Your task to perform on an android device: turn off data saver in the chrome app Image 0: 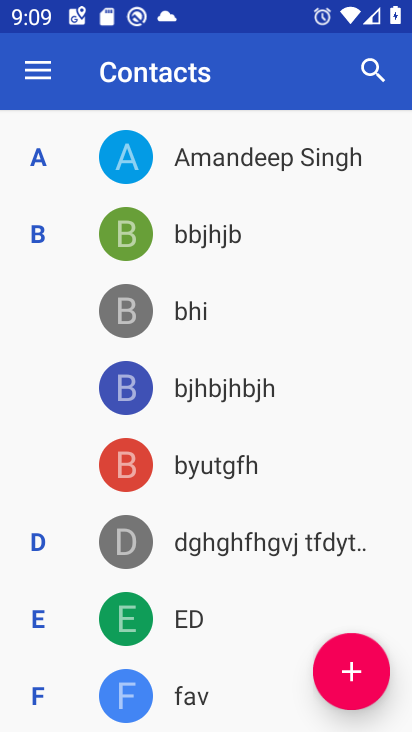
Step 0: press home button
Your task to perform on an android device: turn off data saver in the chrome app Image 1: 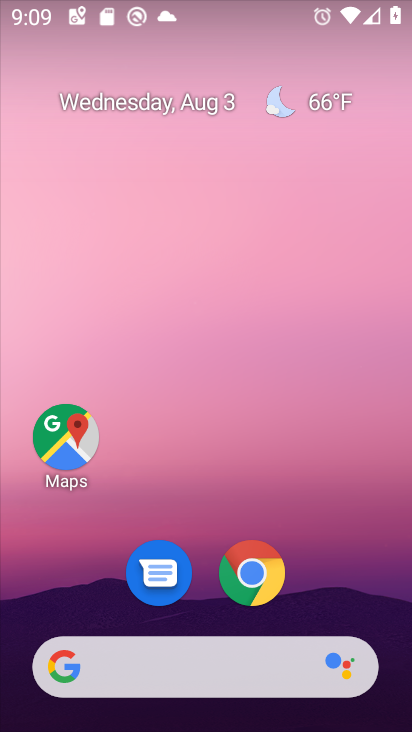
Step 1: click (256, 580)
Your task to perform on an android device: turn off data saver in the chrome app Image 2: 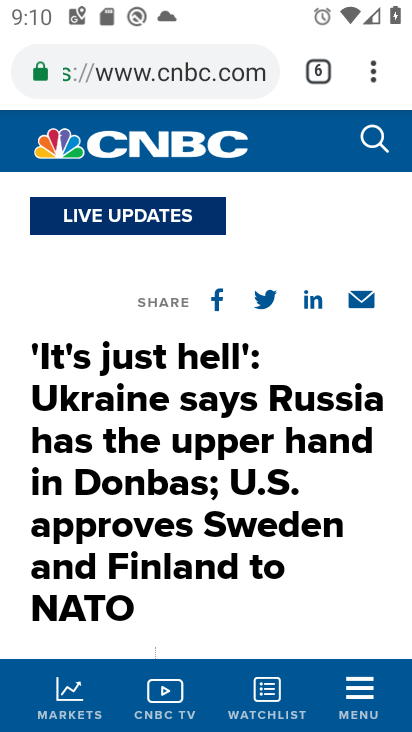
Step 2: click (373, 74)
Your task to perform on an android device: turn off data saver in the chrome app Image 3: 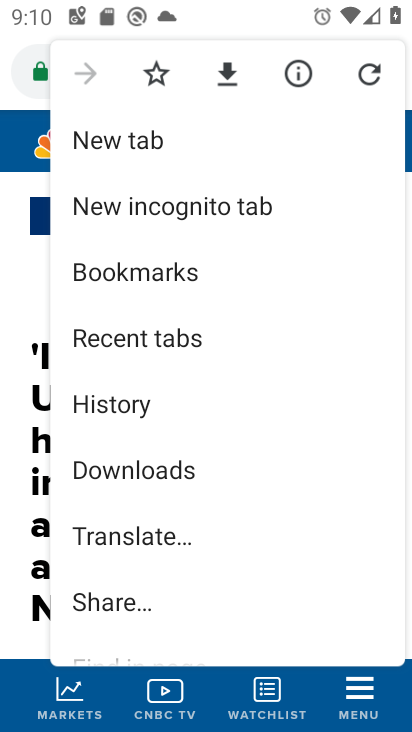
Step 3: drag from (254, 572) to (266, 149)
Your task to perform on an android device: turn off data saver in the chrome app Image 4: 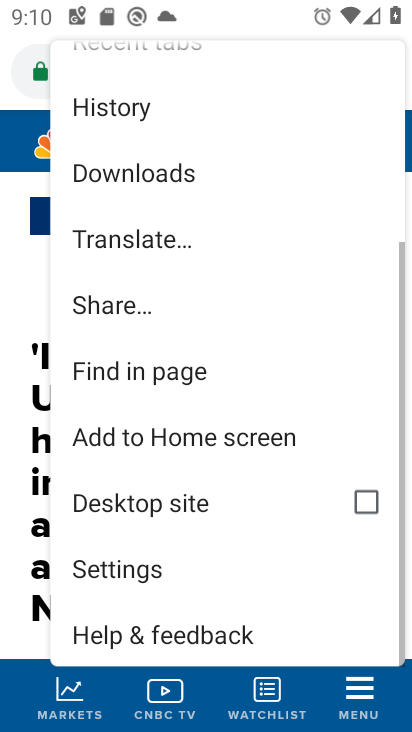
Step 4: click (137, 571)
Your task to perform on an android device: turn off data saver in the chrome app Image 5: 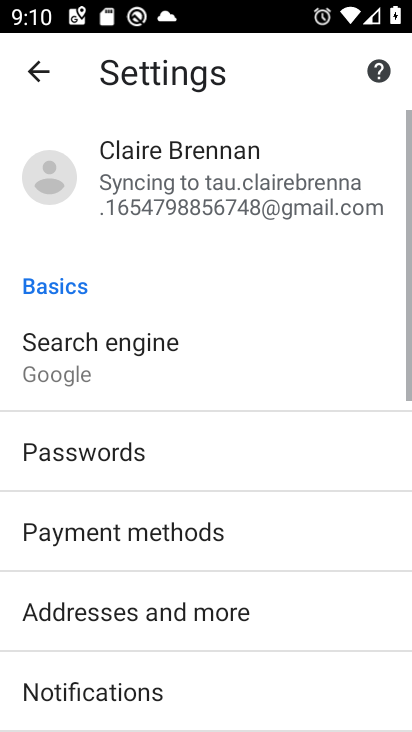
Step 5: drag from (305, 621) to (322, 145)
Your task to perform on an android device: turn off data saver in the chrome app Image 6: 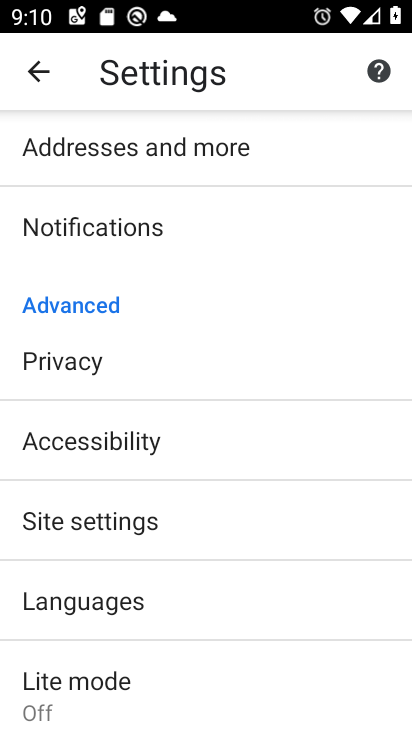
Step 6: drag from (214, 589) to (240, 348)
Your task to perform on an android device: turn off data saver in the chrome app Image 7: 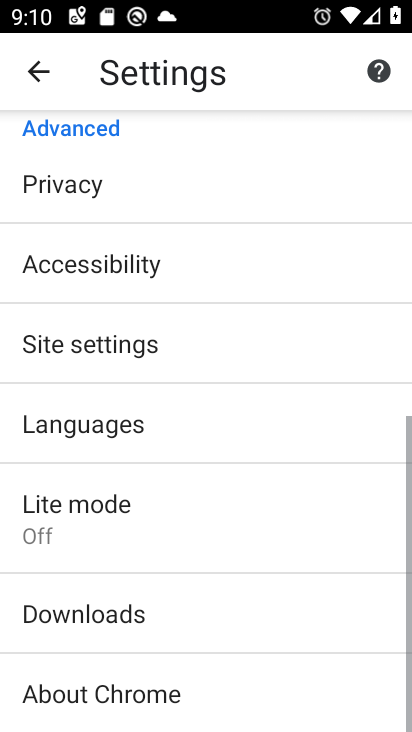
Step 7: click (40, 521)
Your task to perform on an android device: turn off data saver in the chrome app Image 8: 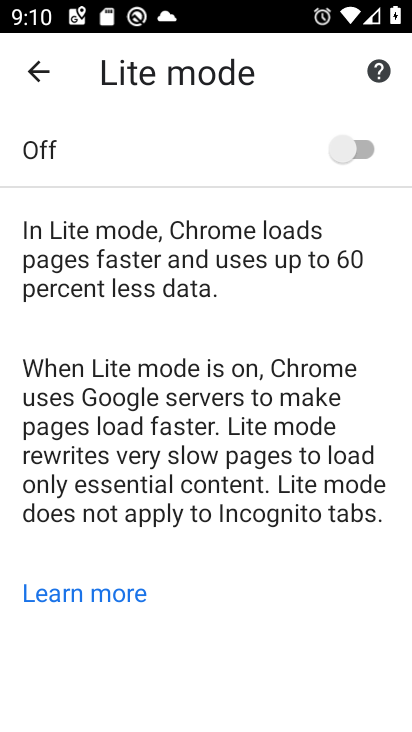
Step 8: task complete